Your task to perform on an android device: Show me the alarms in the clock app Image 0: 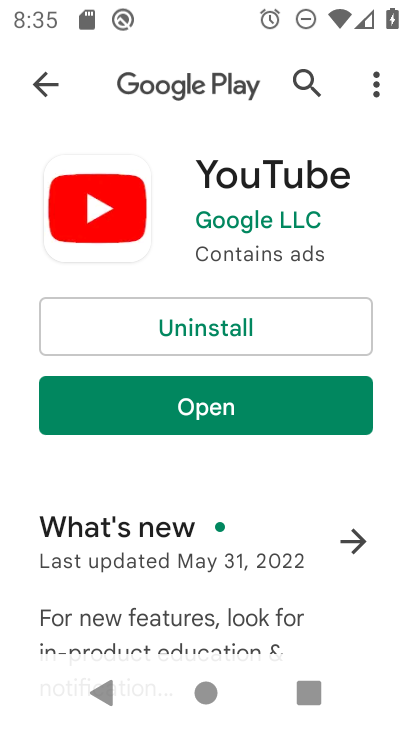
Step 0: press back button
Your task to perform on an android device: Show me the alarms in the clock app Image 1: 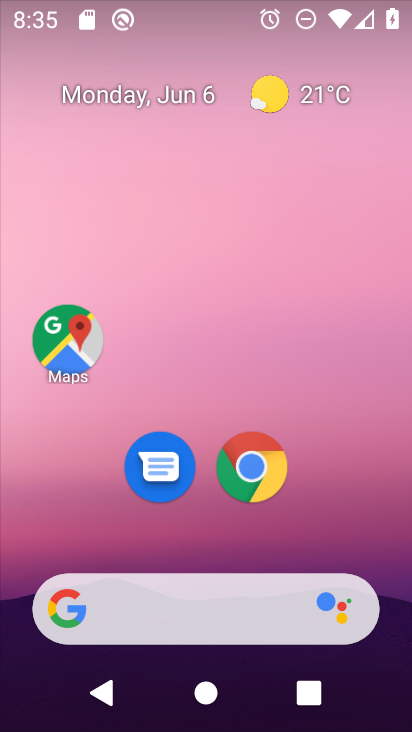
Step 1: drag from (370, 523) to (331, 159)
Your task to perform on an android device: Show me the alarms in the clock app Image 2: 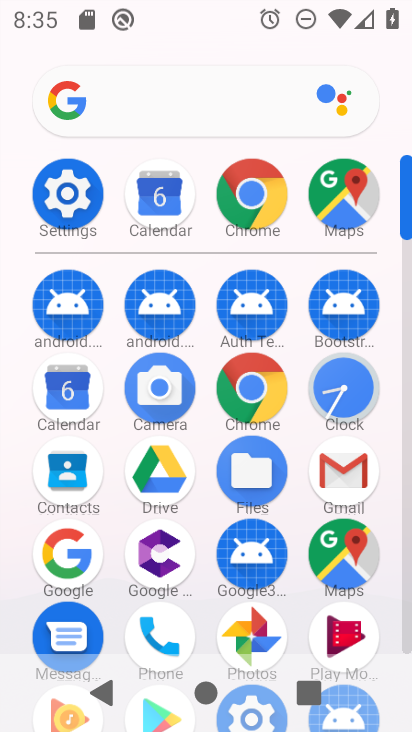
Step 2: click (343, 387)
Your task to perform on an android device: Show me the alarms in the clock app Image 3: 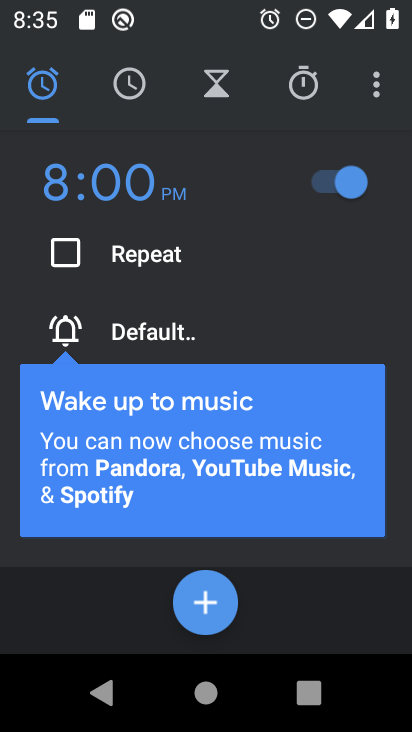
Step 3: task complete